Your task to perform on an android device: turn notification dots on Image 0: 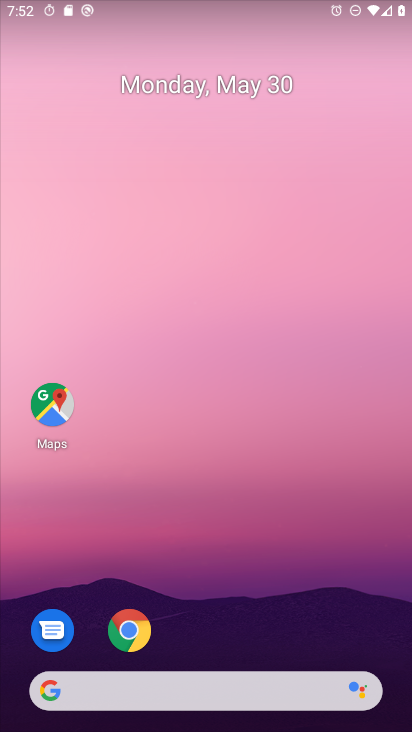
Step 0: drag from (336, 632) to (404, 696)
Your task to perform on an android device: turn notification dots on Image 1: 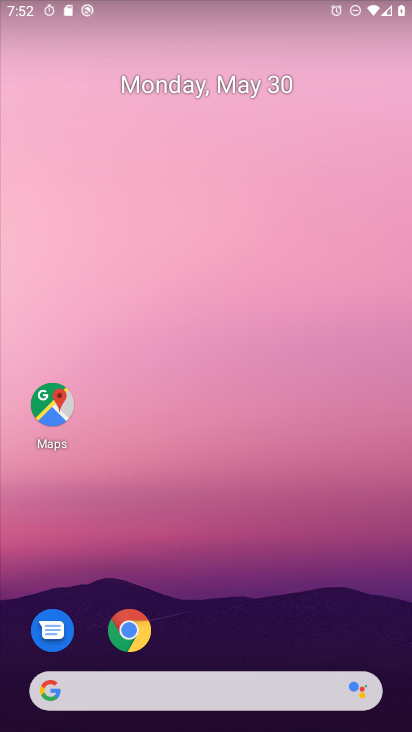
Step 1: drag from (275, 633) to (311, 67)
Your task to perform on an android device: turn notification dots on Image 2: 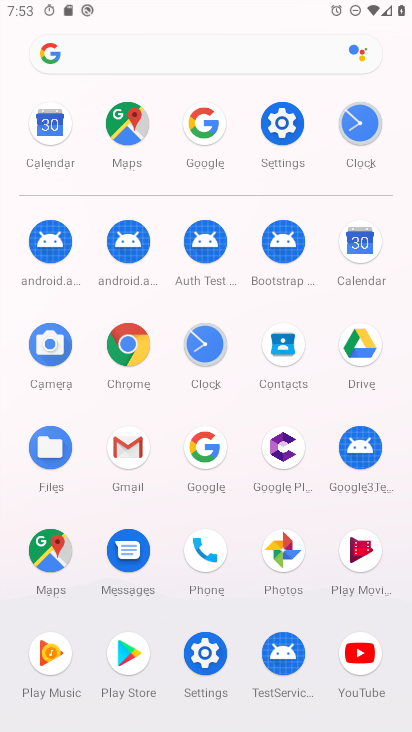
Step 2: click (214, 652)
Your task to perform on an android device: turn notification dots on Image 3: 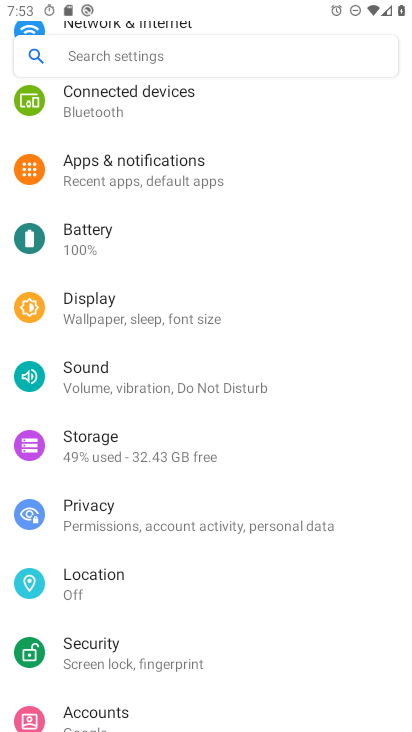
Step 3: click (215, 166)
Your task to perform on an android device: turn notification dots on Image 4: 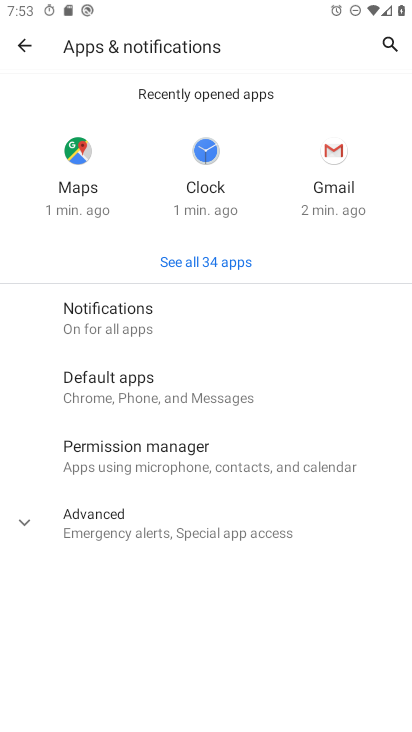
Step 4: click (174, 321)
Your task to perform on an android device: turn notification dots on Image 5: 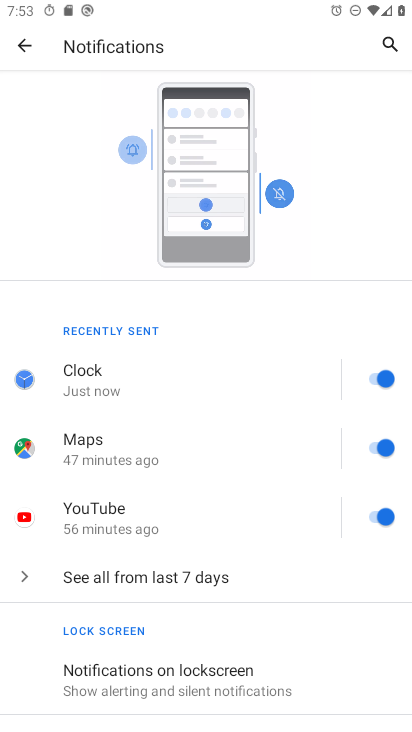
Step 5: drag from (250, 686) to (258, 314)
Your task to perform on an android device: turn notification dots on Image 6: 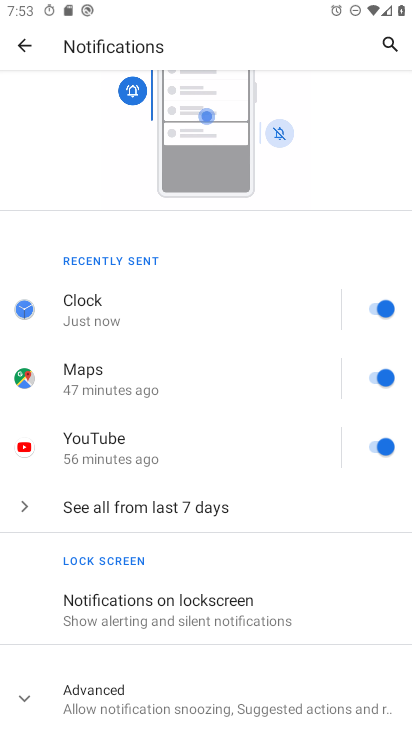
Step 6: click (198, 698)
Your task to perform on an android device: turn notification dots on Image 7: 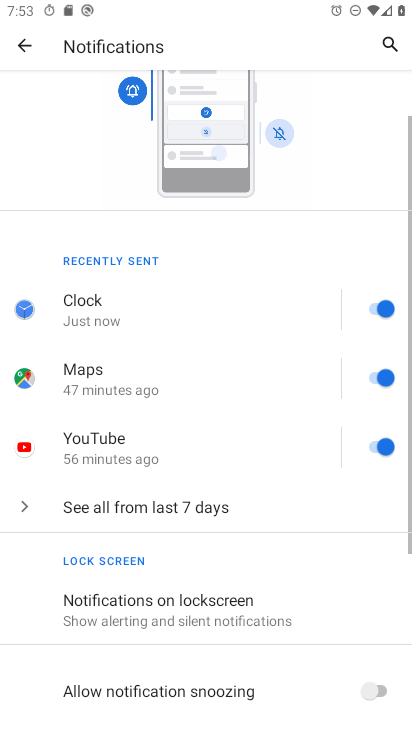
Step 7: drag from (198, 698) to (279, 157)
Your task to perform on an android device: turn notification dots on Image 8: 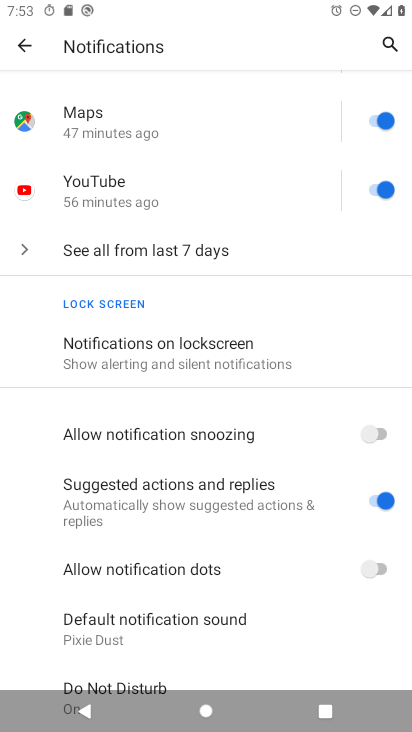
Step 8: click (304, 575)
Your task to perform on an android device: turn notification dots on Image 9: 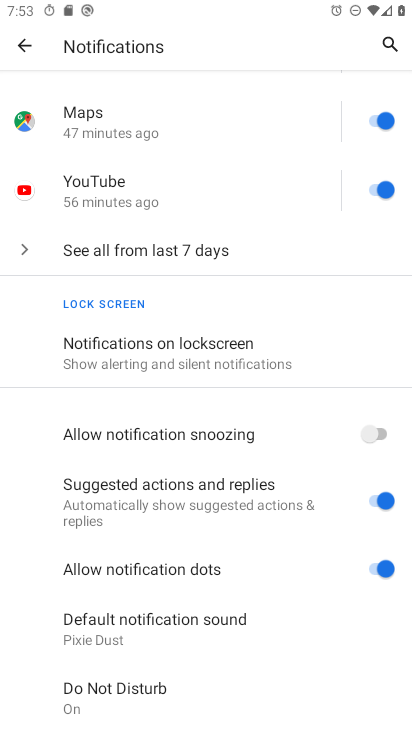
Step 9: task complete